Your task to perform on an android device: Open the calendar and show me this week's events? Image 0: 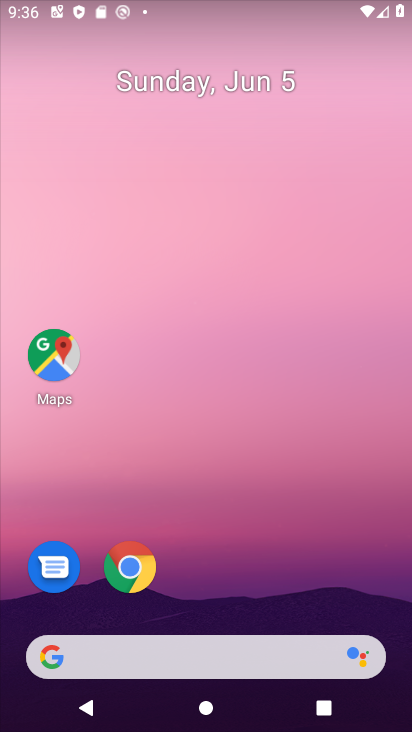
Step 0: drag from (203, 642) to (203, 252)
Your task to perform on an android device: Open the calendar and show me this week's events? Image 1: 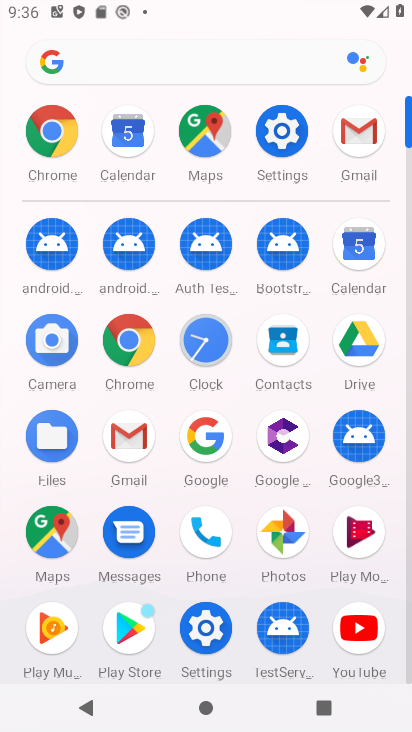
Step 1: click (358, 251)
Your task to perform on an android device: Open the calendar and show me this week's events? Image 2: 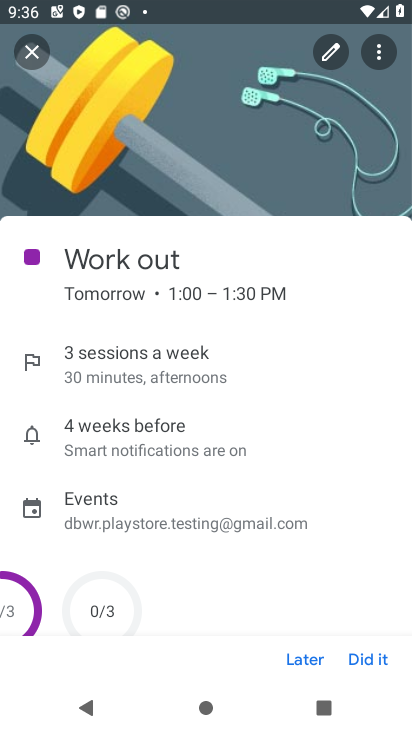
Step 2: click (21, 45)
Your task to perform on an android device: Open the calendar and show me this week's events? Image 3: 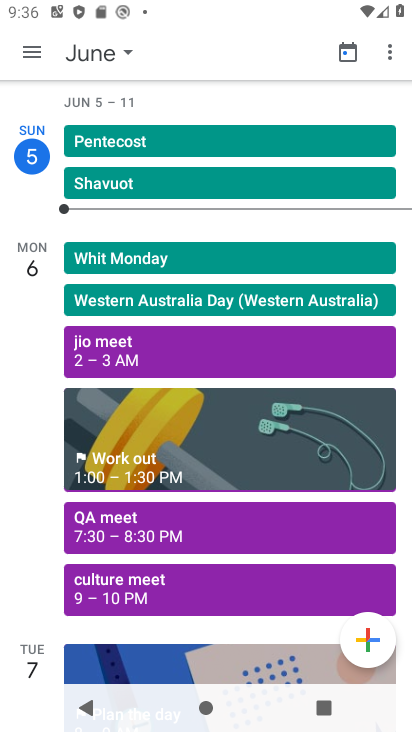
Step 3: task complete